Your task to perform on an android device: Open Youtube and go to the subscriptions tab Image 0: 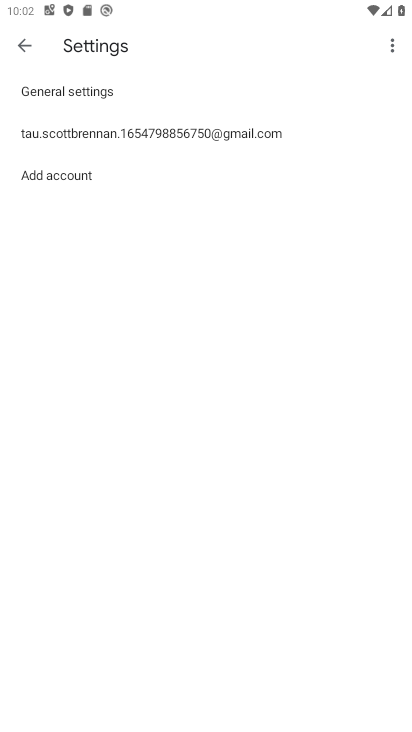
Step 0: press home button
Your task to perform on an android device: Open Youtube and go to the subscriptions tab Image 1: 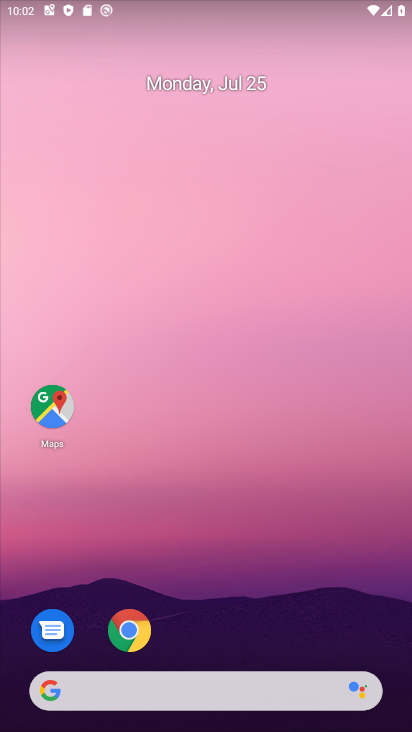
Step 1: drag from (346, 578) to (395, 539)
Your task to perform on an android device: Open Youtube and go to the subscriptions tab Image 2: 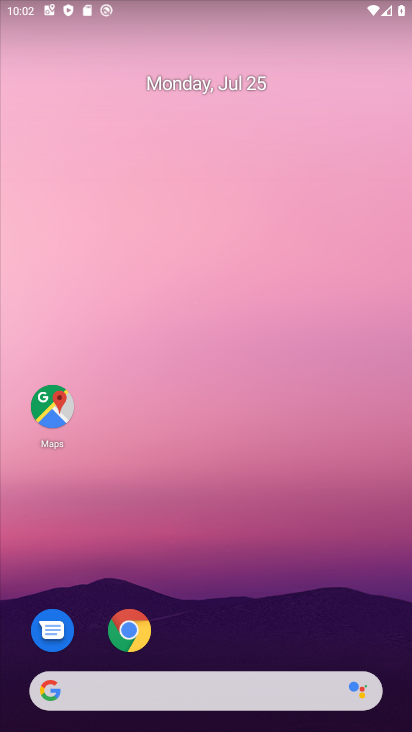
Step 2: drag from (313, 589) to (334, 48)
Your task to perform on an android device: Open Youtube and go to the subscriptions tab Image 3: 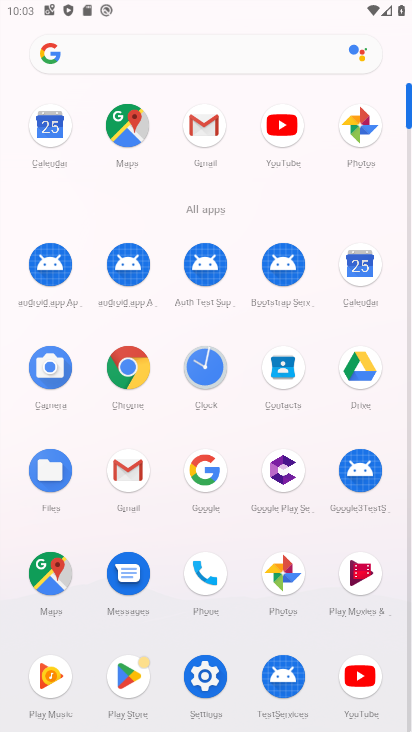
Step 3: click (358, 667)
Your task to perform on an android device: Open Youtube and go to the subscriptions tab Image 4: 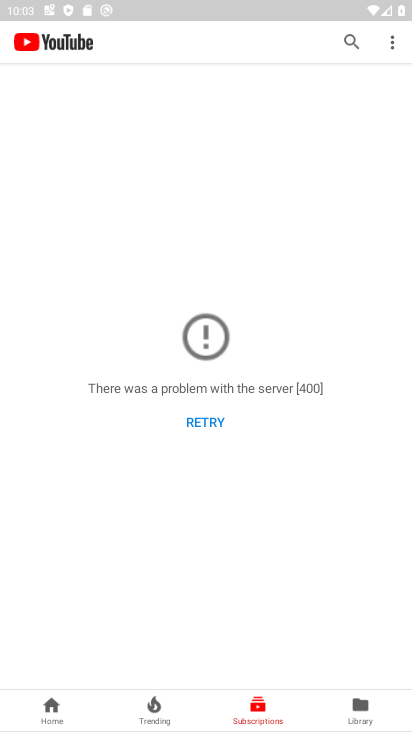
Step 4: task complete